Your task to perform on an android device: What's the news in Jamaica? Image 0: 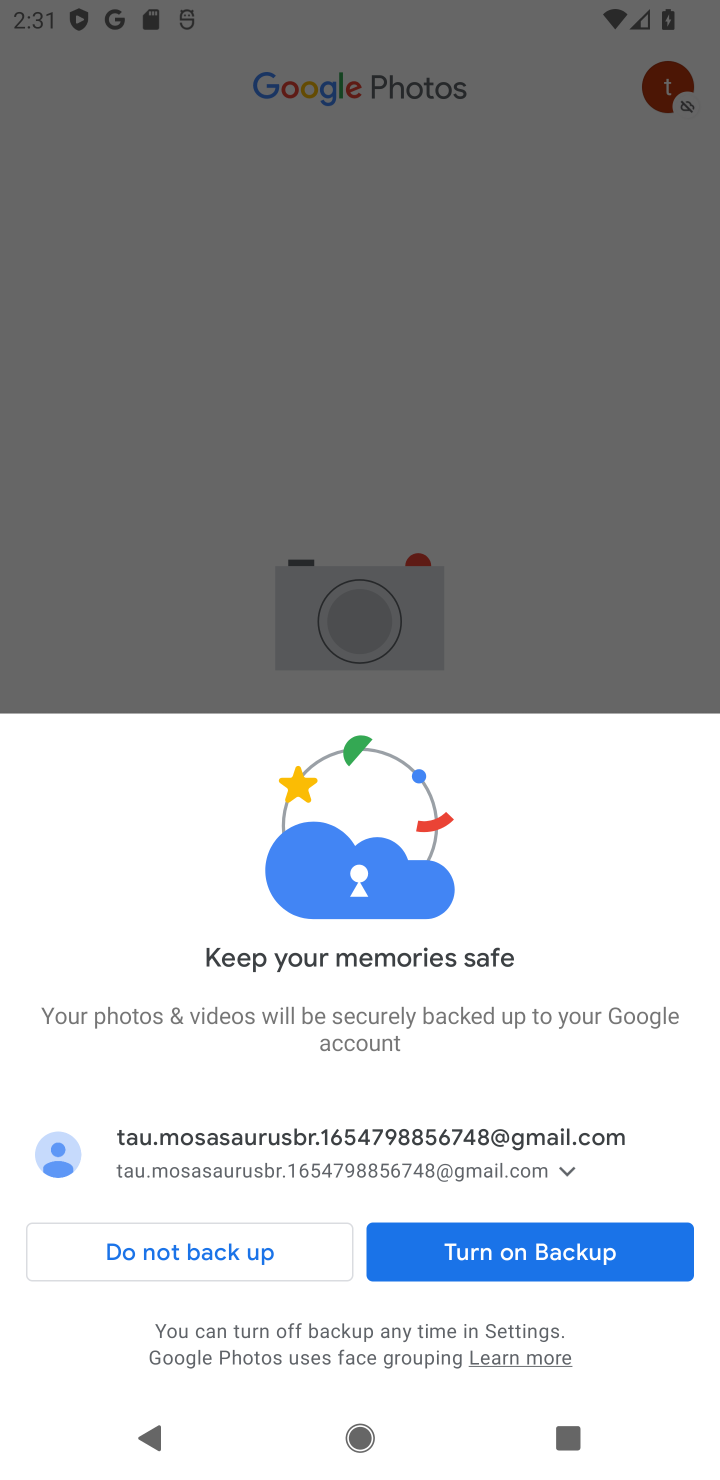
Step 0: press home button
Your task to perform on an android device: What's the news in Jamaica? Image 1: 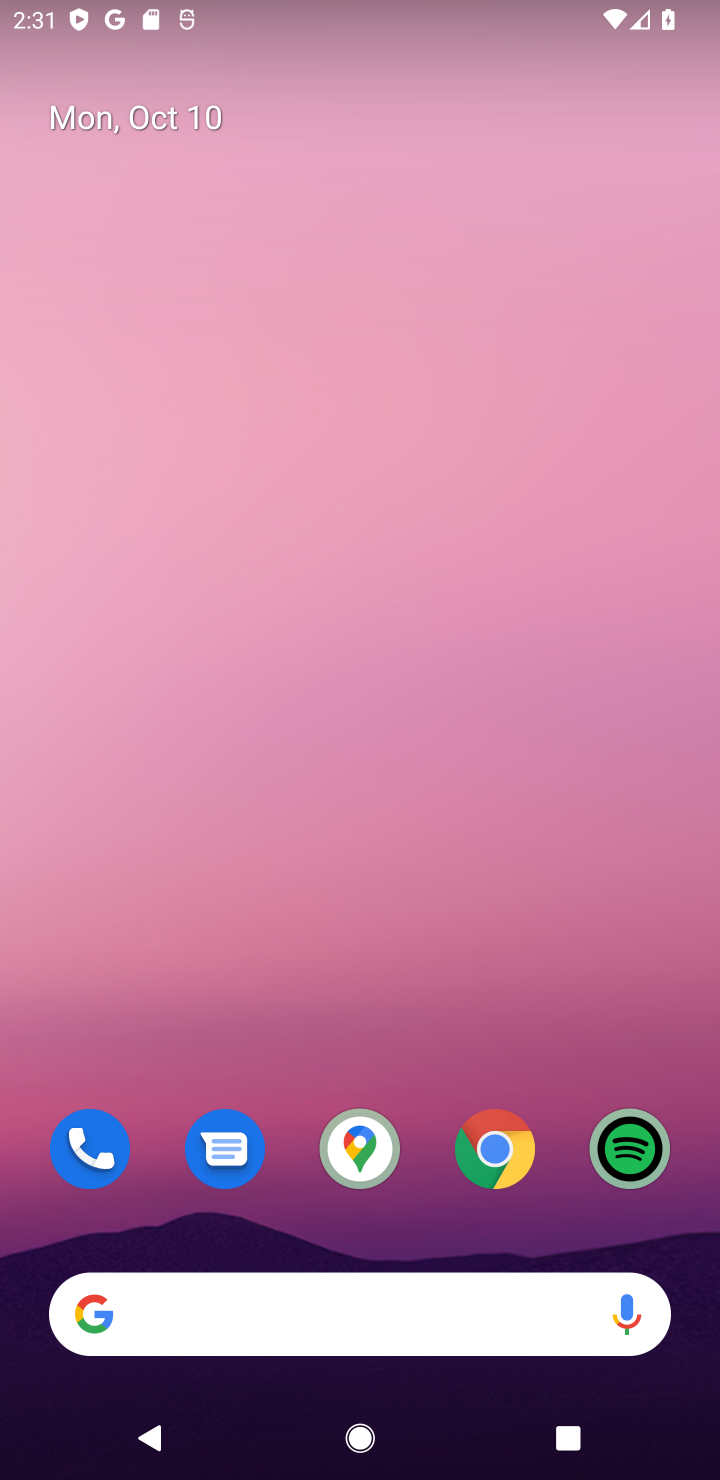
Step 1: click (365, 1311)
Your task to perform on an android device: What's the news in Jamaica? Image 2: 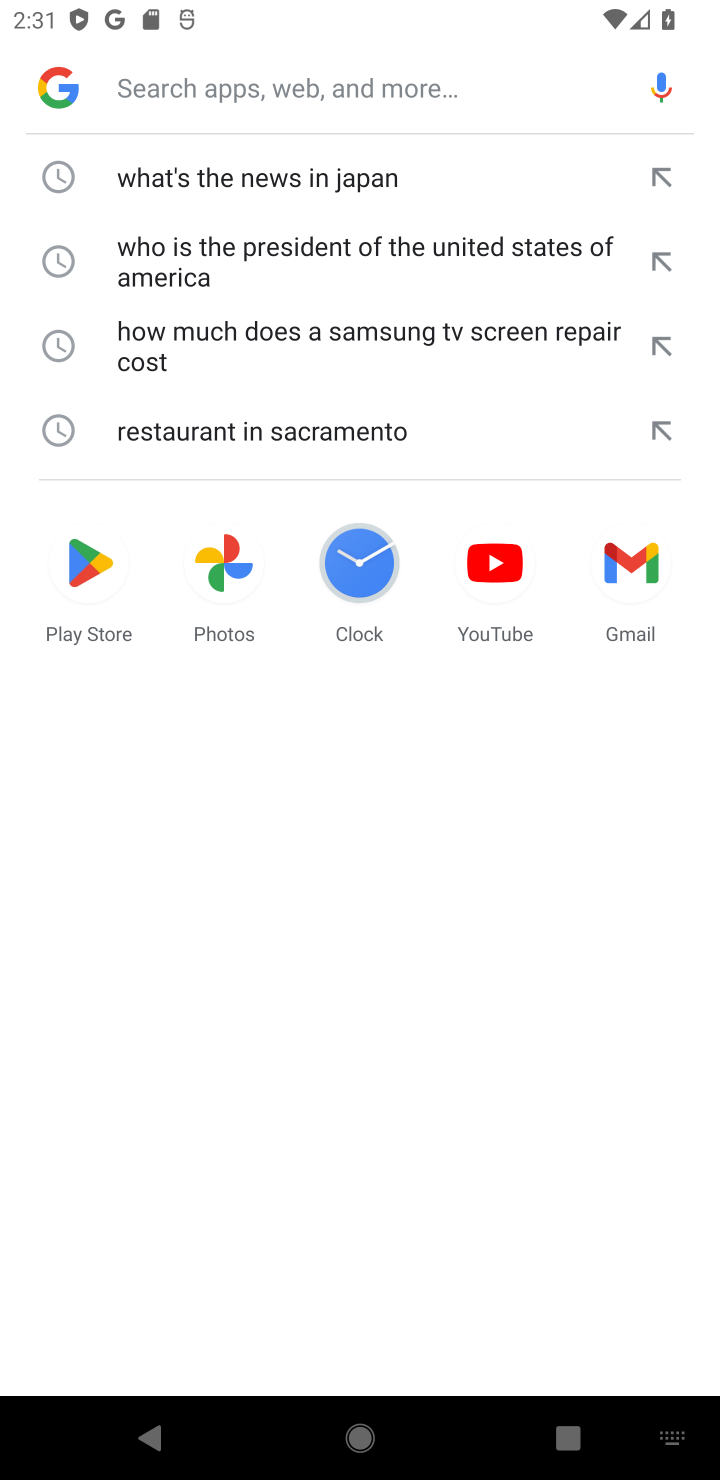
Step 2: type "What's the news in Jamaica?"
Your task to perform on an android device: What's the news in Jamaica? Image 3: 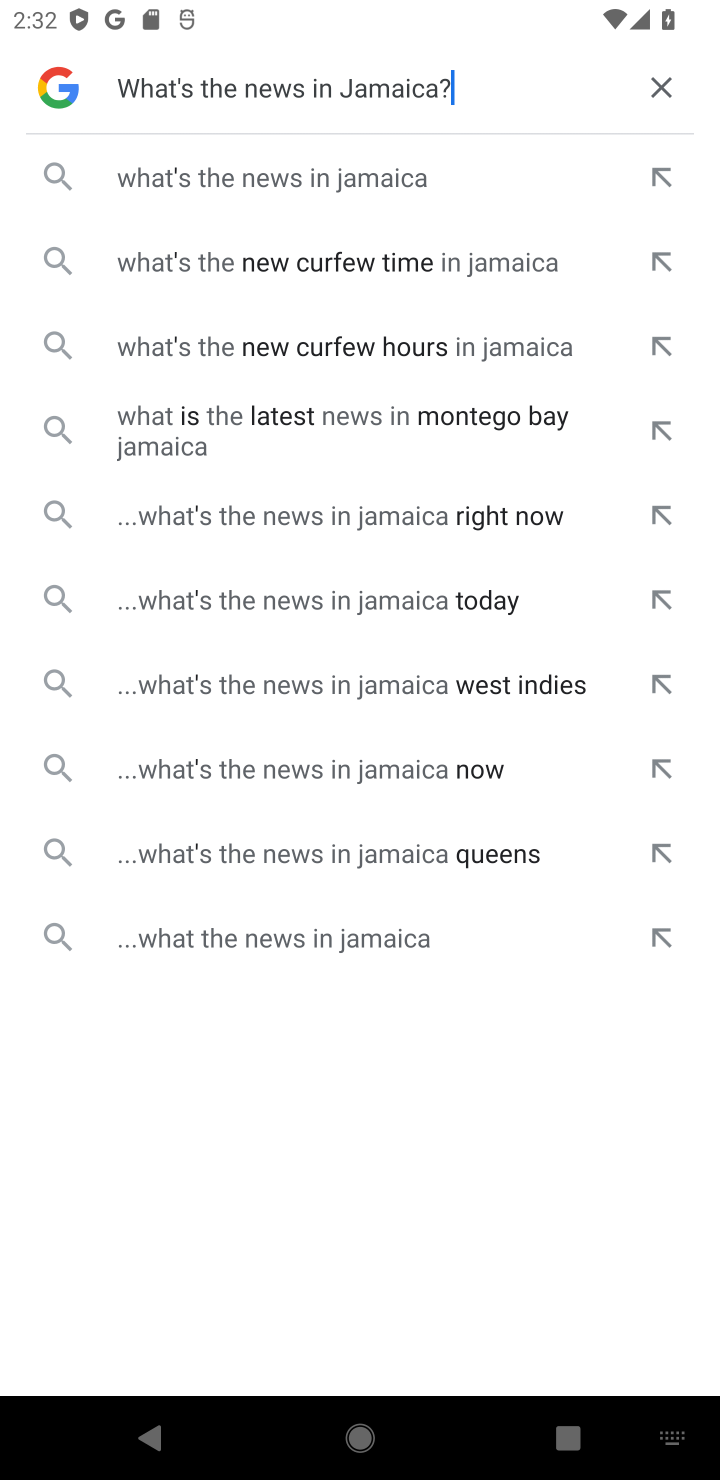
Step 3: click (291, 184)
Your task to perform on an android device: What's the news in Jamaica? Image 4: 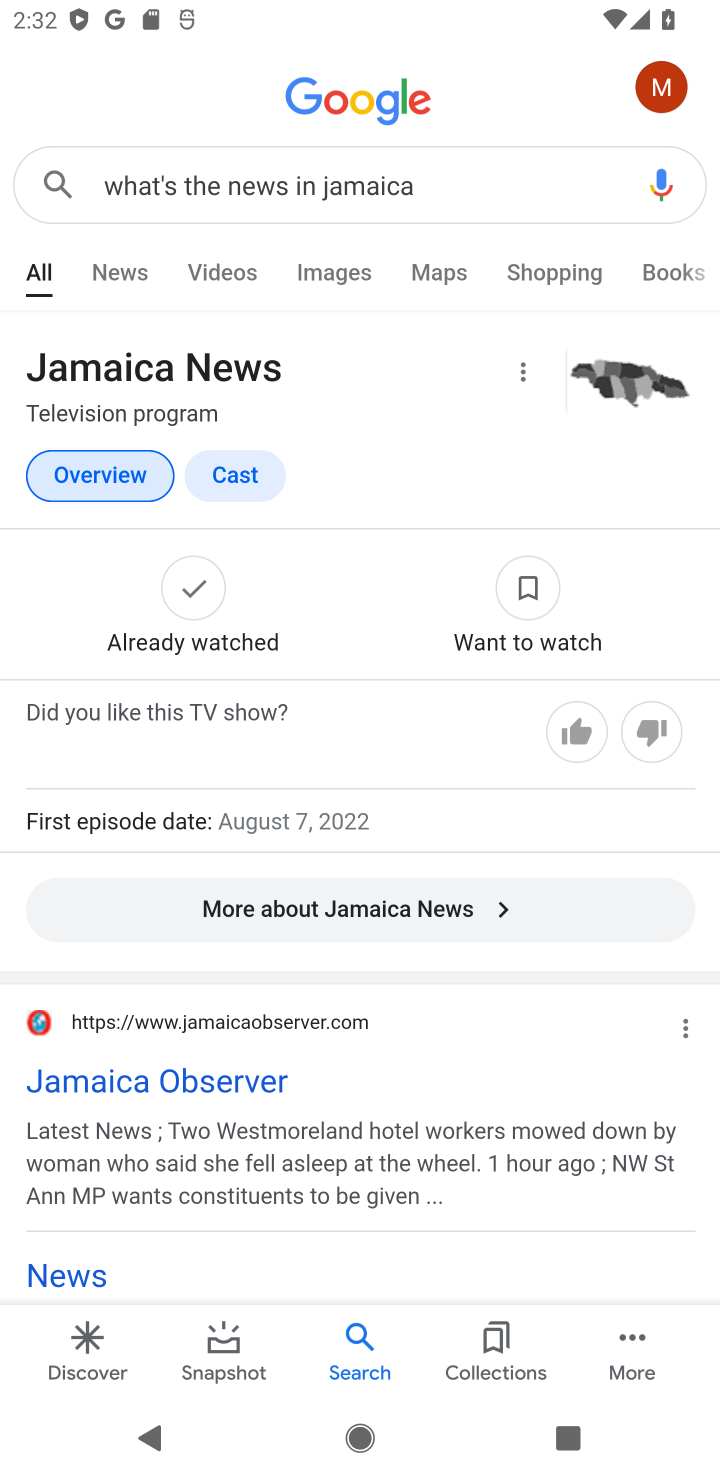
Step 4: task complete